Your task to perform on an android device: turn on location history Image 0: 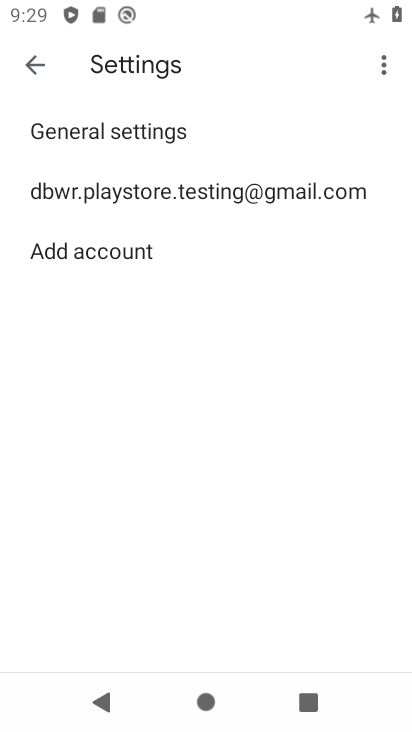
Step 0: press home button
Your task to perform on an android device: turn on location history Image 1: 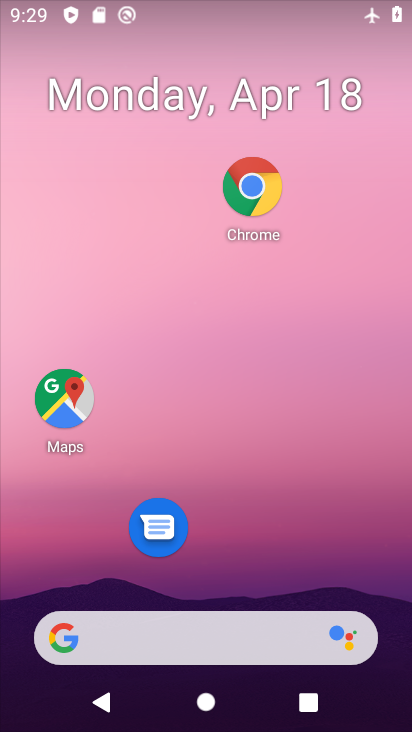
Step 1: drag from (243, 544) to (234, 36)
Your task to perform on an android device: turn on location history Image 2: 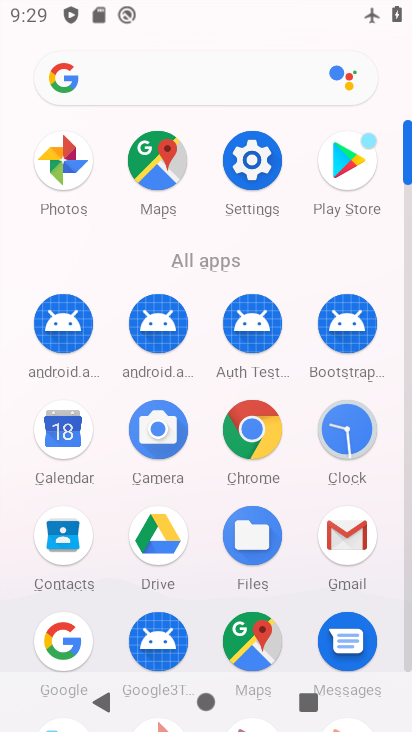
Step 2: click (254, 172)
Your task to perform on an android device: turn on location history Image 3: 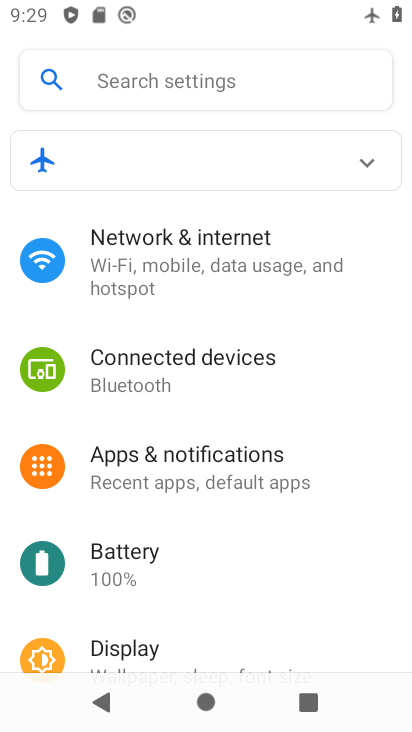
Step 3: drag from (260, 614) to (252, 105)
Your task to perform on an android device: turn on location history Image 4: 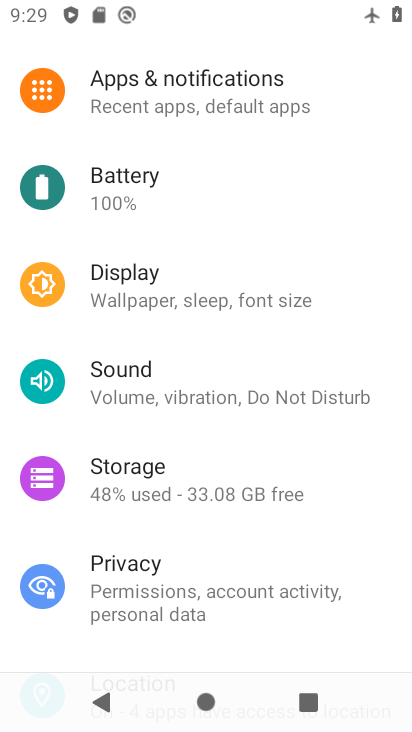
Step 4: drag from (320, 506) to (320, 157)
Your task to perform on an android device: turn on location history Image 5: 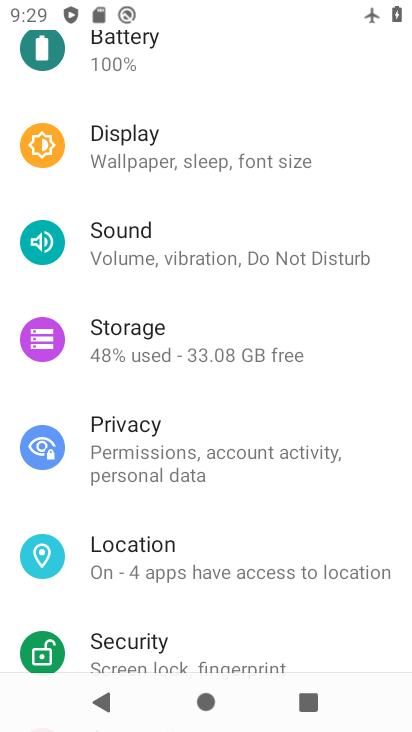
Step 5: click (235, 558)
Your task to perform on an android device: turn on location history Image 6: 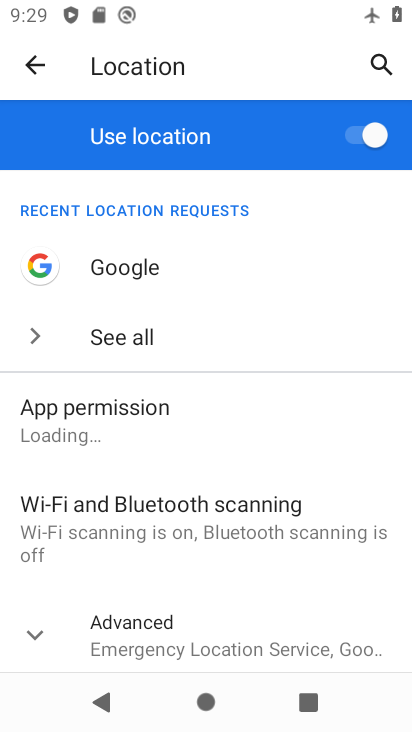
Step 6: drag from (195, 595) to (200, 213)
Your task to perform on an android device: turn on location history Image 7: 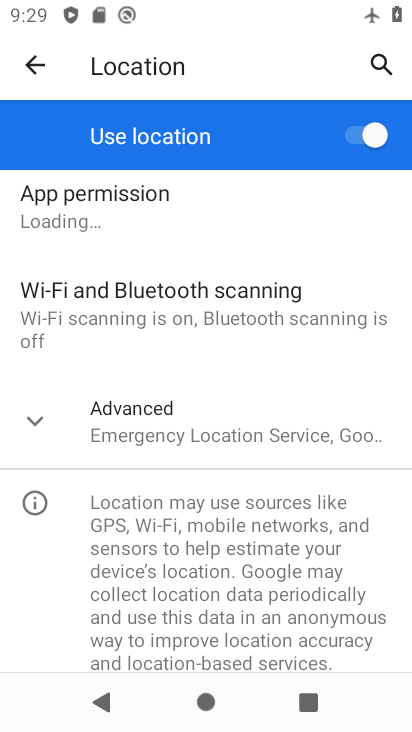
Step 7: click (180, 445)
Your task to perform on an android device: turn on location history Image 8: 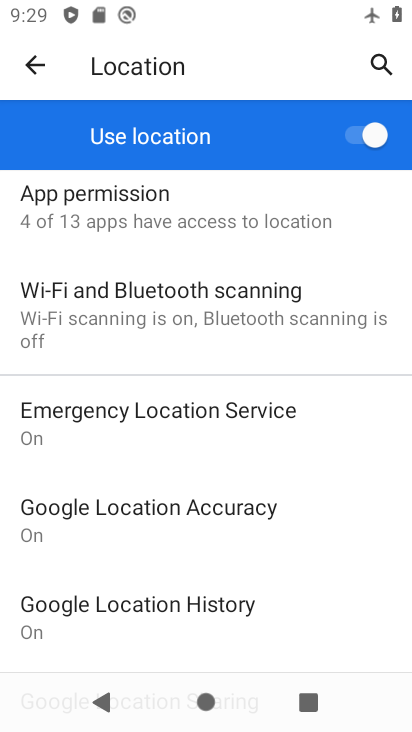
Step 8: task complete